Your task to perform on an android device: turn notification dots off Image 0: 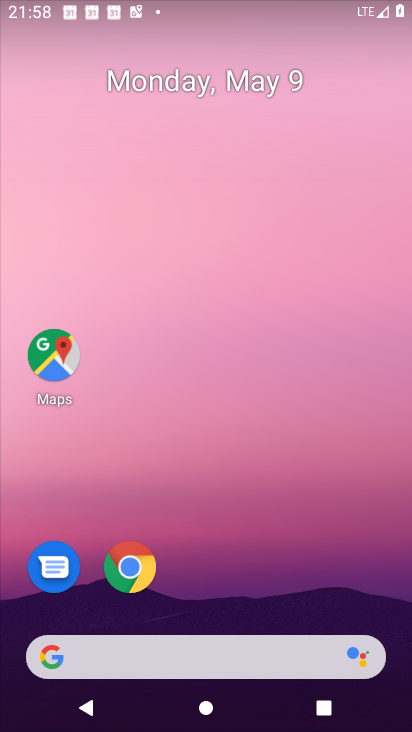
Step 0: drag from (208, 538) to (284, 111)
Your task to perform on an android device: turn notification dots off Image 1: 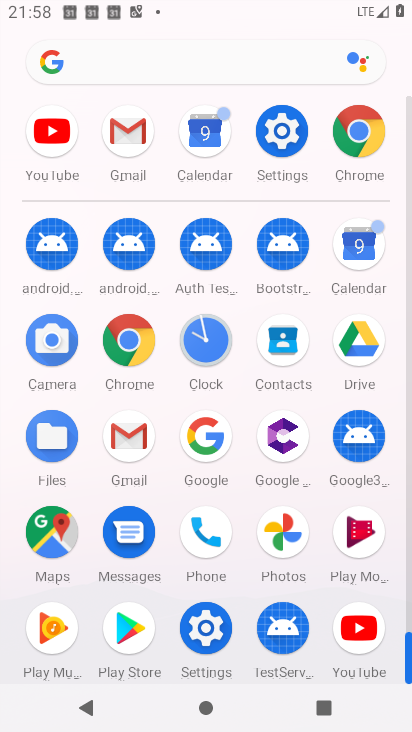
Step 1: click (207, 618)
Your task to perform on an android device: turn notification dots off Image 2: 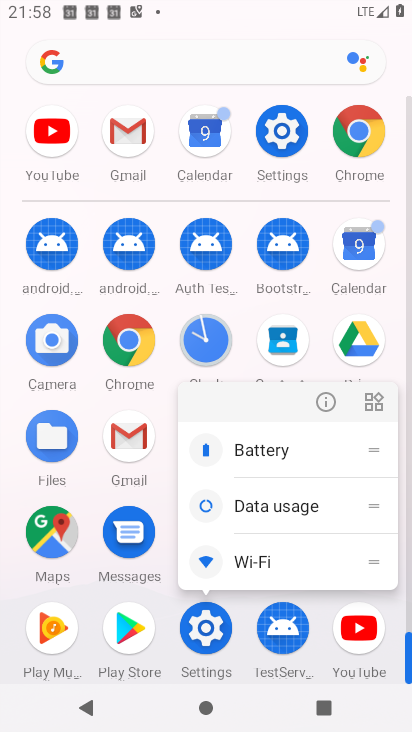
Step 2: click (328, 401)
Your task to perform on an android device: turn notification dots off Image 3: 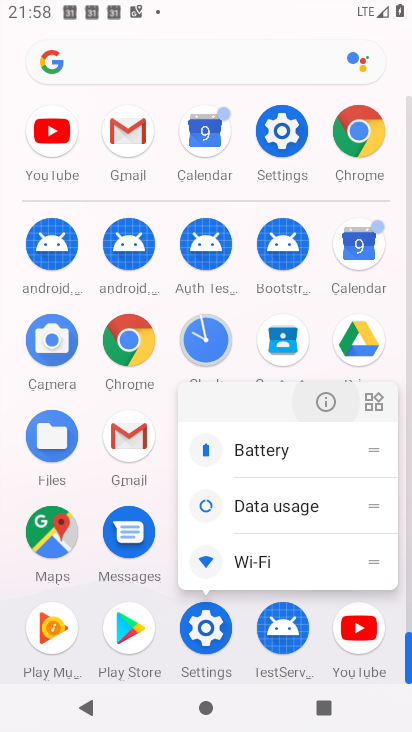
Step 3: click (328, 401)
Your task to perform on an android device: turn notification dots off Image 4: 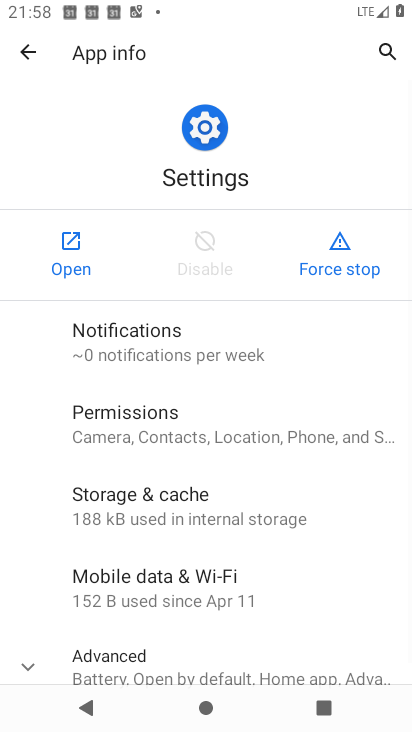
Step 4: click (64, 258)
Your task to perform on an android device: turn notification dots off Image 5: 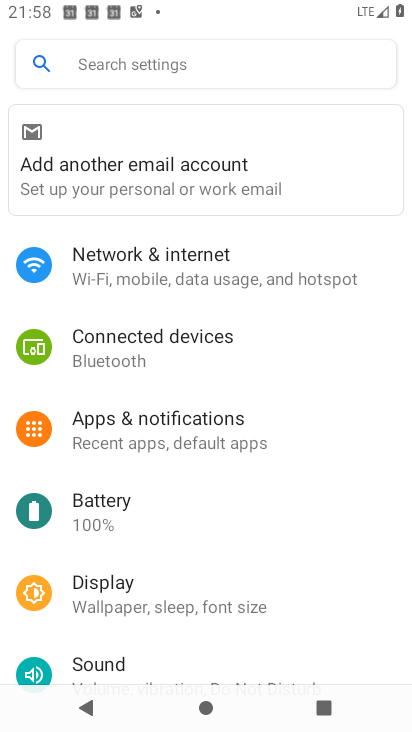
Step 5: click (181, 439)
Your task to perform on an android device: turn notification dots off Image 6: 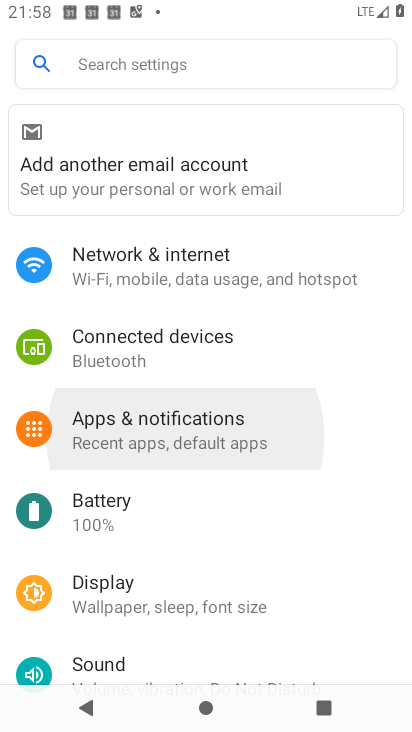
Step 6: click (181, 439)
Your task to perform on an android device: turn notification dots off Image 7: 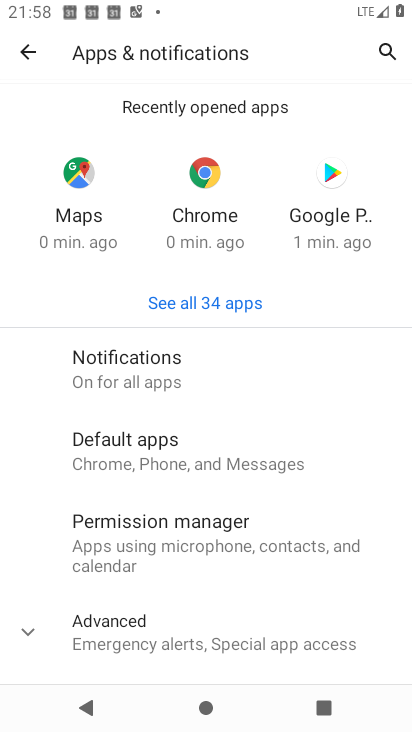
Step 7: click (207, 358)
Your task to perform on an android device: turn notification dots off Image 8: 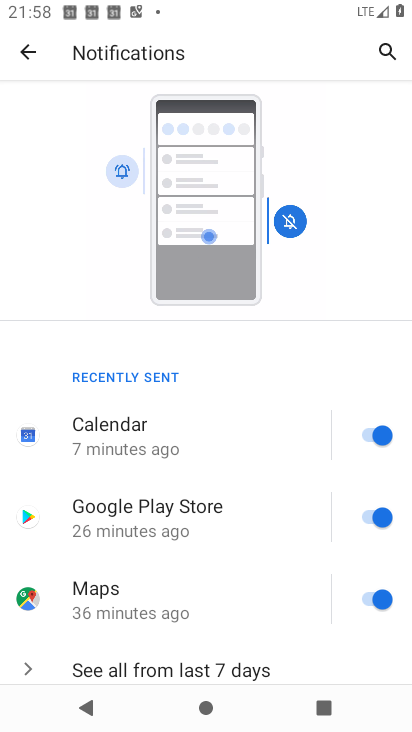
Step 8: drag from (255, 621) to (344, 211)
Your task to perform on an android device: turn notification dots off Image 9: 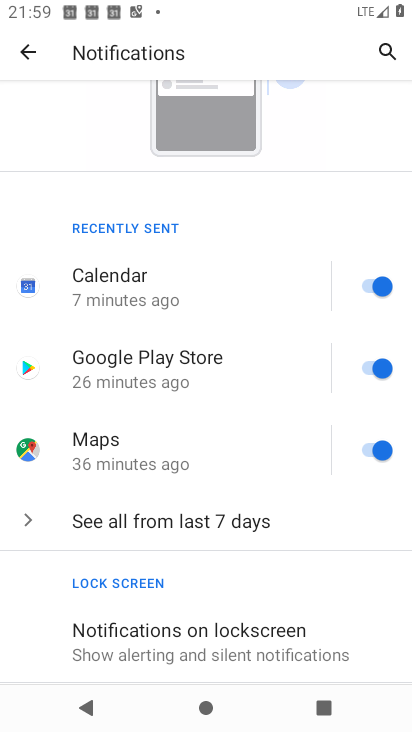
Step 9: drag from (220, 629) to (302, 114)
Your task to perform on an android device: turn notification dots off Image 10: 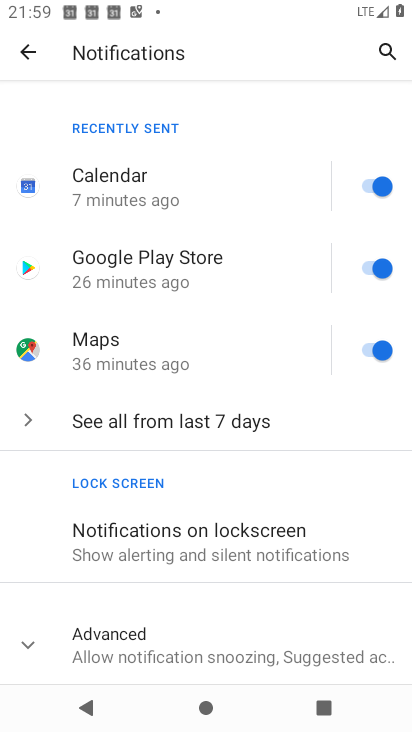
Step 10: click (151, 659)
Your task to perform on an android device: turn notification dots off Image 11: 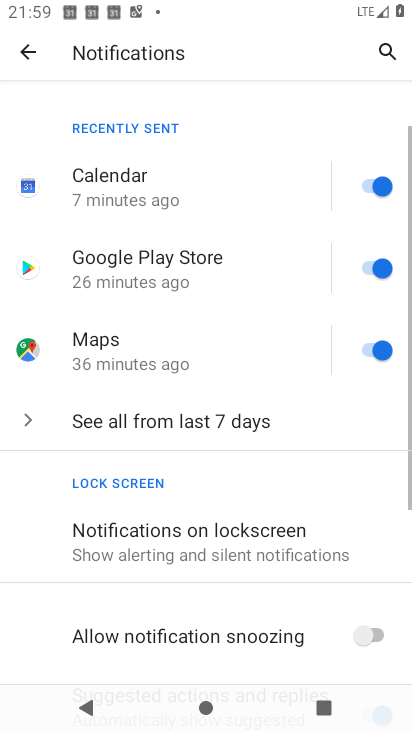
Step 11: drag from (150, 658) to (295, 123)
Your task to perform on an android device: turn notification dots off Image 12: 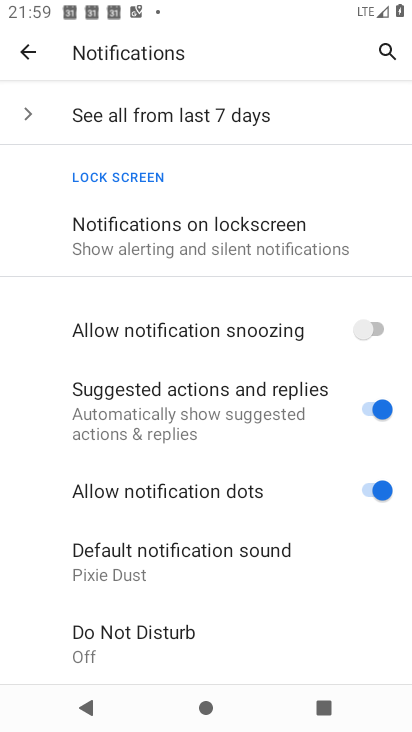
Step 12: click (379, 496)
Your task to perform on an android device: turn notification dots off Image 13: 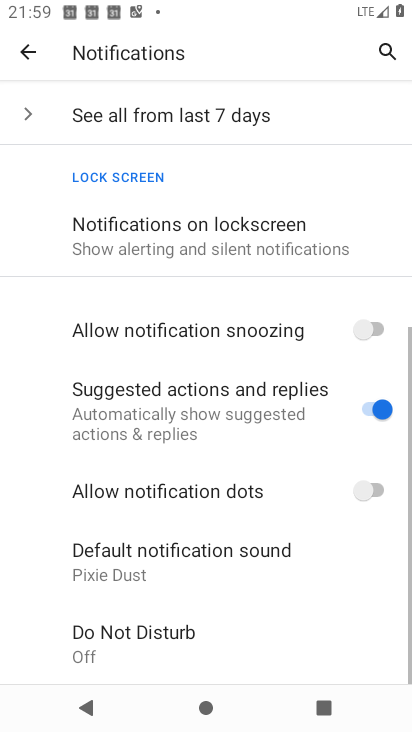
Step 13: task complete